Your task to perform on an android device: What's the weather today? Image 0: 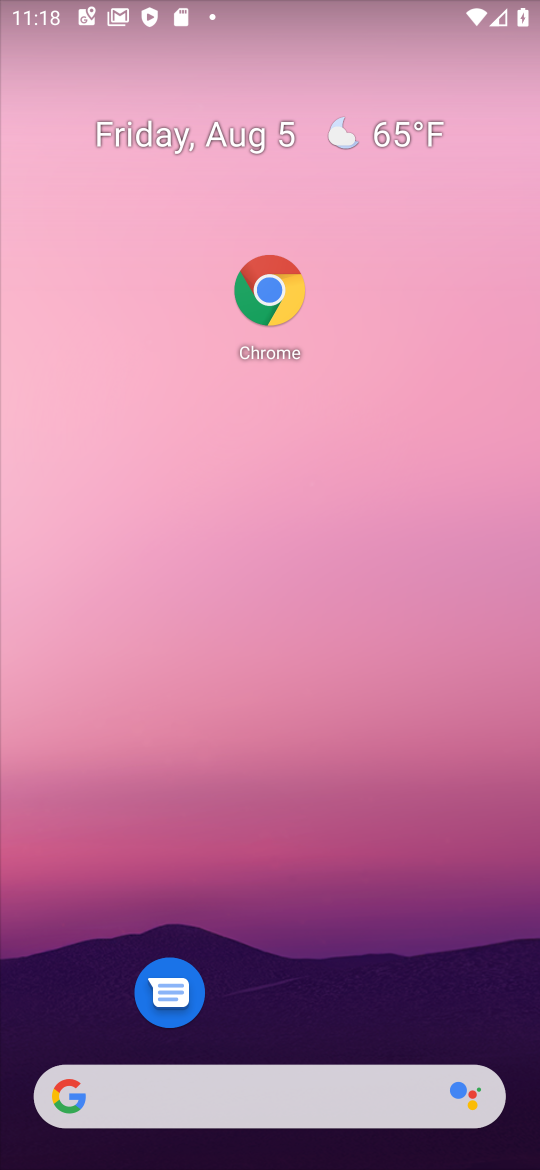
Step 0: drag from (315, 836) to (316, 35)
Your task to perform on an android device: What's the weather today? Image 1: 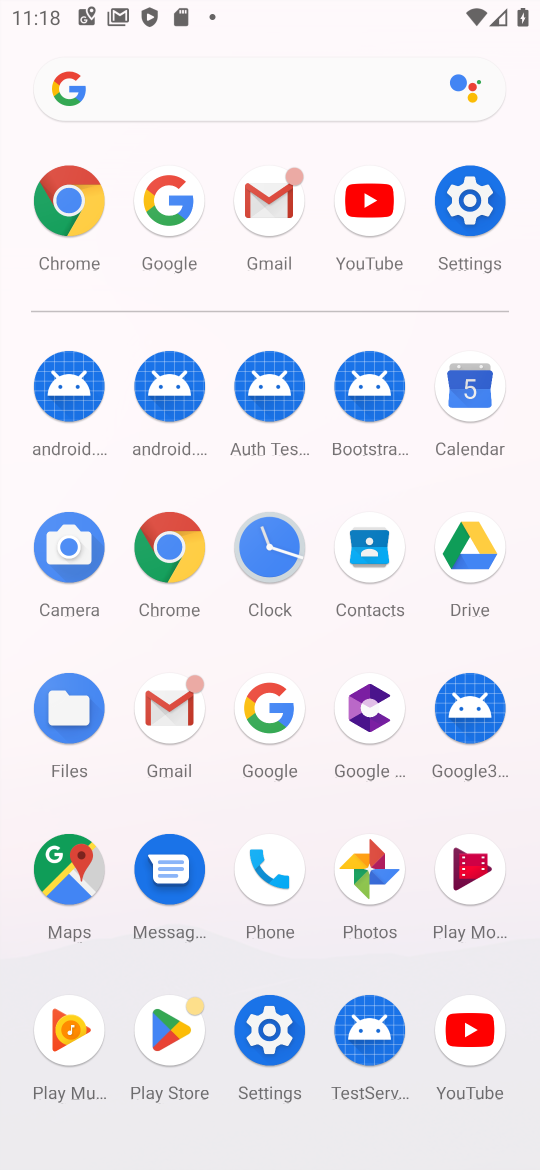
Step 1: click (278, 695)
Your task to perform on an android device: What's the weather today? Image 2: 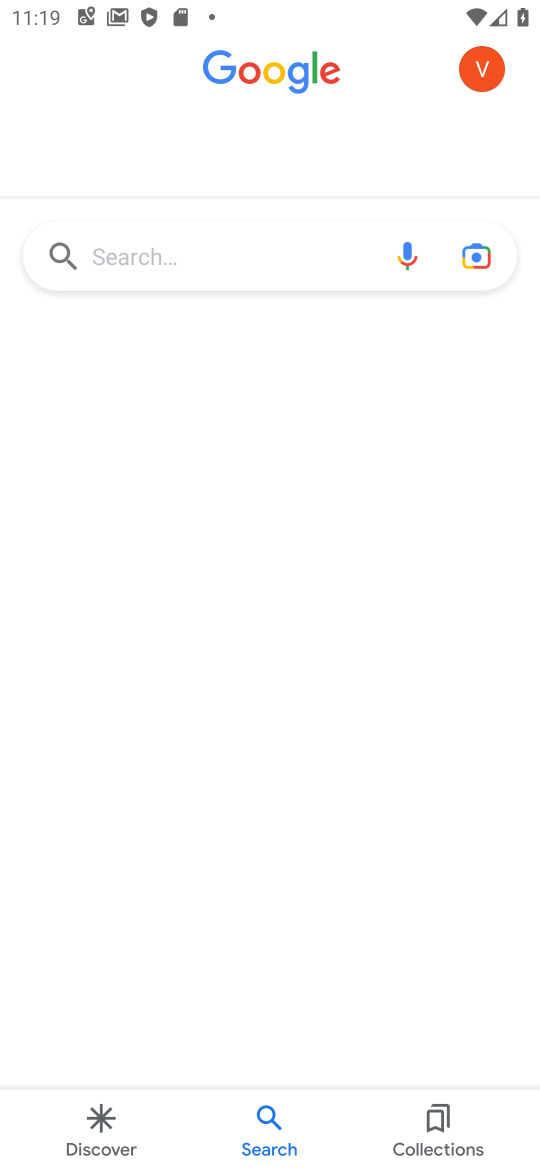
Step 2: click (200, 271)
Your task to perform on an android device: What's the weather today? Image 3: 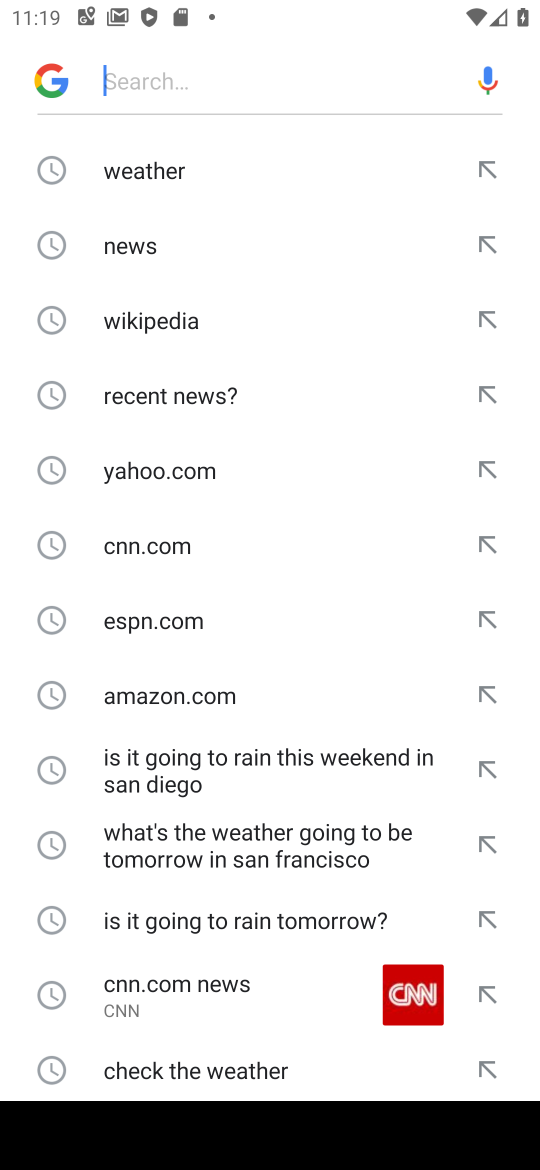
Step 3: click (155, 177)
Your task to perform on an android device: What's the weather today? Image 4: 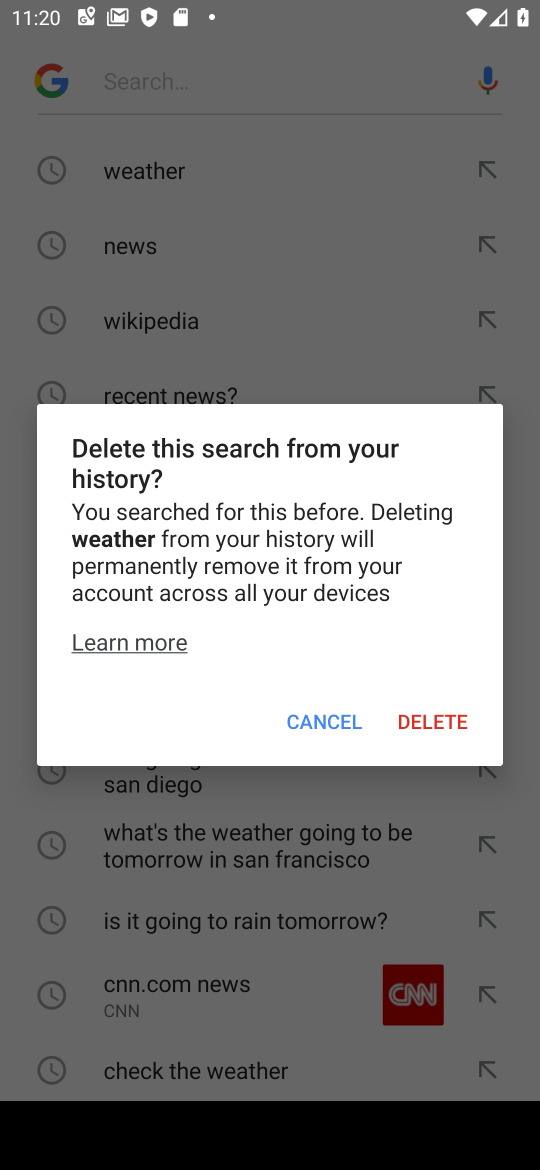
Step 4: click (321, 717)
Your task to perform on an android device: What's the weather today? Image 5: 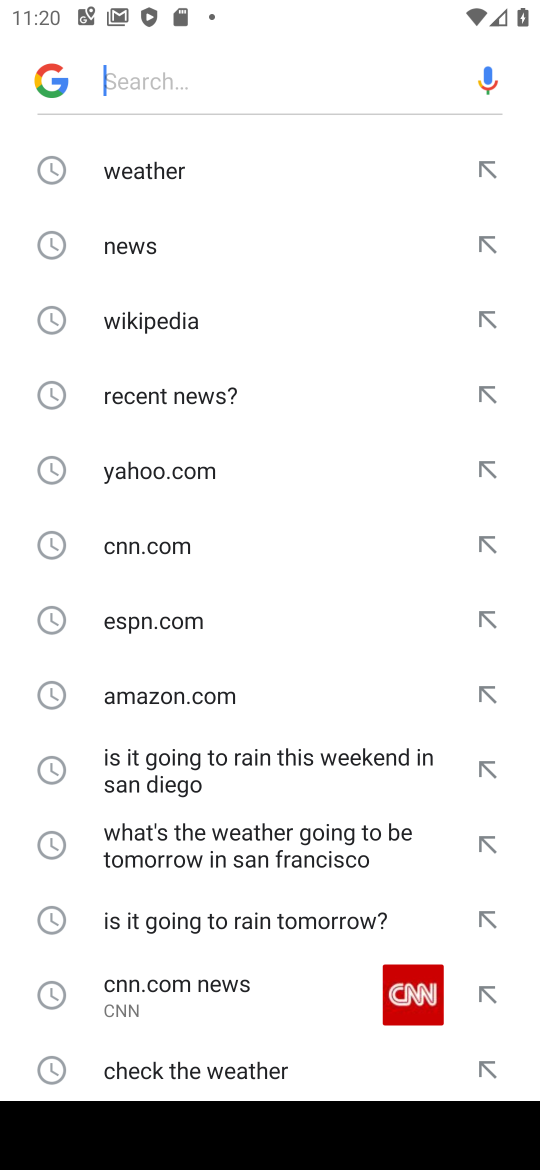
Step 5: click (143, 171)
Your task to perform on an android device: What's the weather today? Image 6: 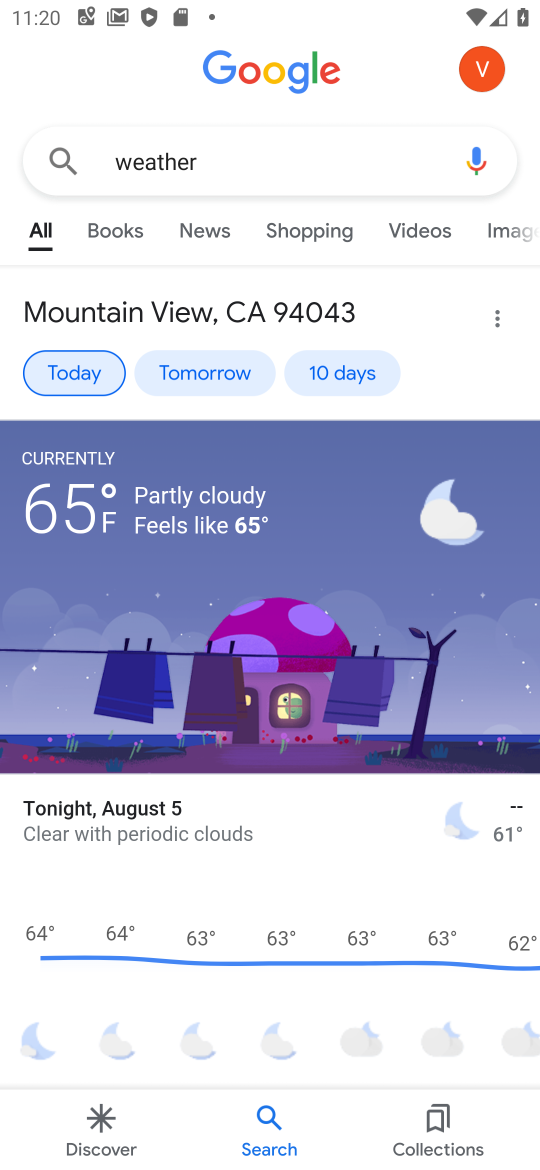
Step 6: task complete